Your task to perform on an android device: move a message to another label in the gmail app Image 0: 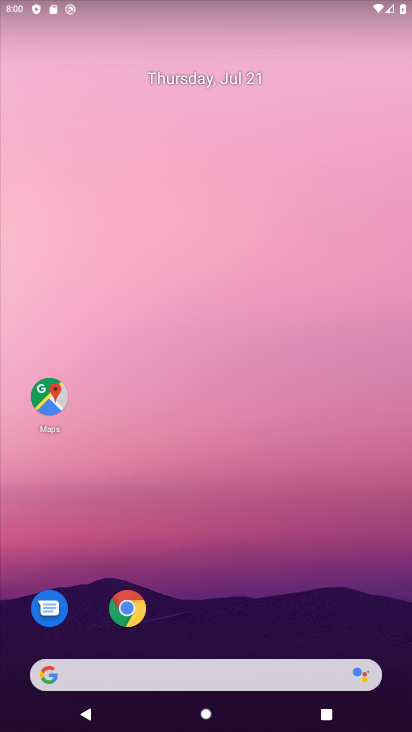
Step 0: drag from (20, 683) to (172, 133)
Your task to perform on an android device: move a message to another label in the gmail app Image 1: 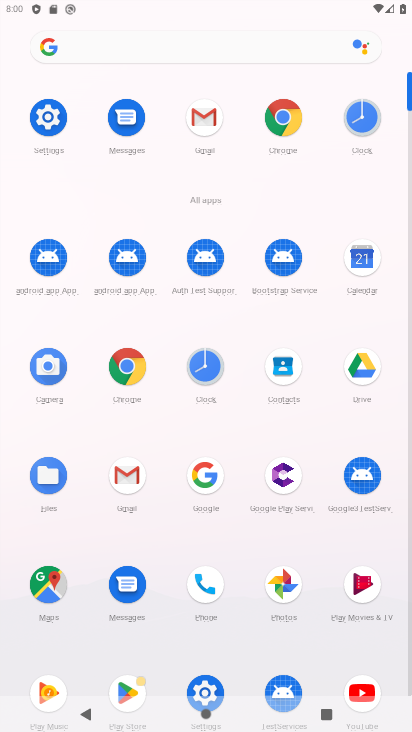
Step 1: click (126, 472)
Your task to perform on an android device: move a message to another label in the gmail app Image 2: 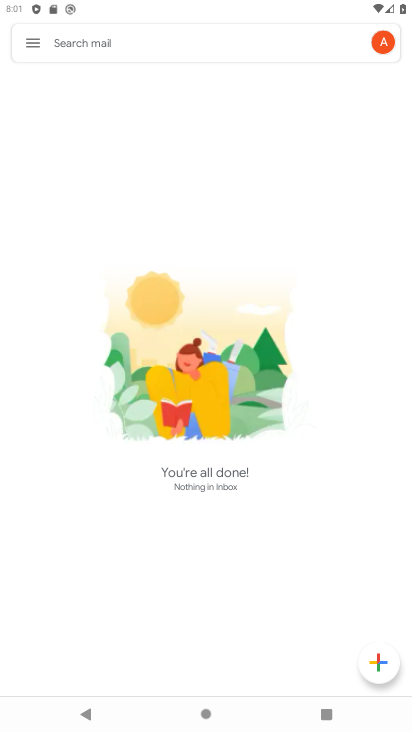
Step 2: click (16, 34)
Your task to perform on an android device: move a message to another label in the gmail app Image 3: 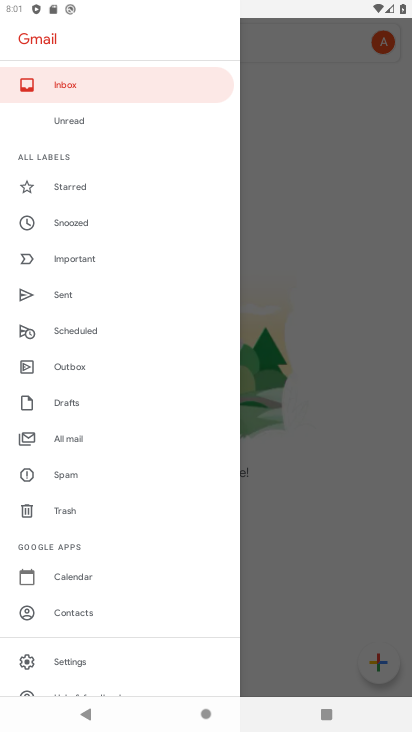
Step 3: click (69, 76)
Your task to perform on an android device: move a message to another label in the gmail app Image 4: 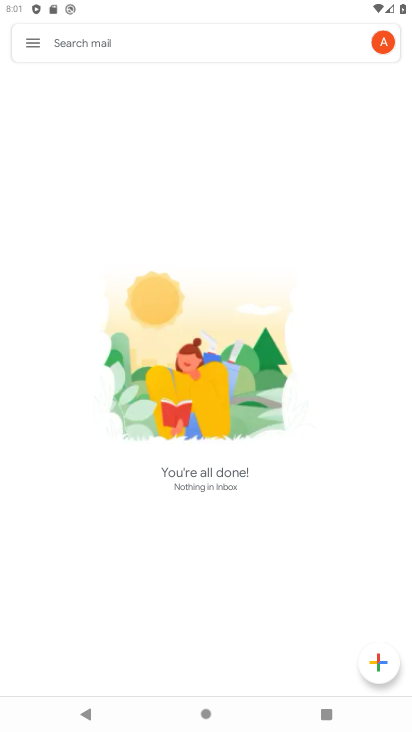
Step 4: task complete